Your task to perform on an android device: Go to battery settings Image 0: 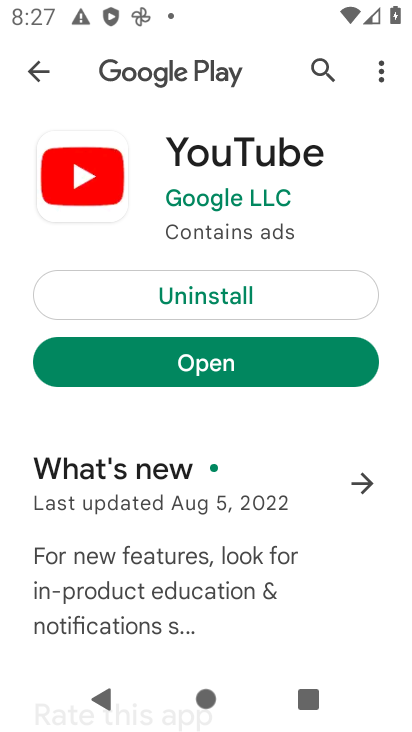
Step 0: press home button
Your task to perform on an android device: Go to battery settings Image 1: 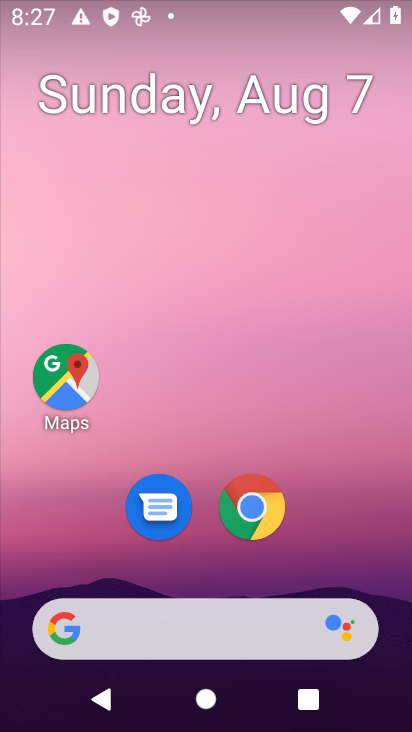
Step 1: drag from (185, 607) to (351, 59)
Your task to perform on an android device: Go to battery settings Image 2: 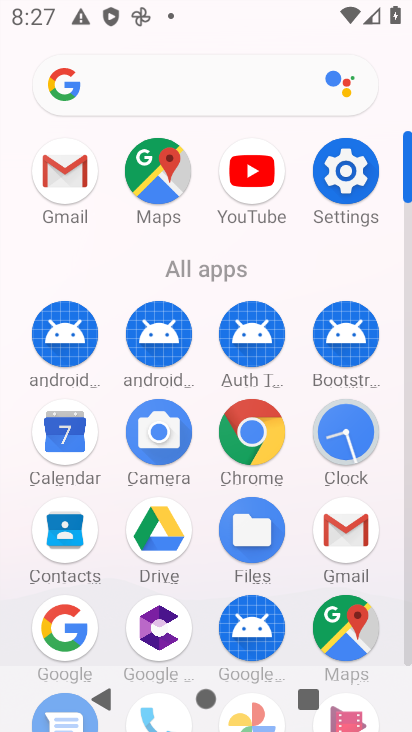
Step 2: click (342, 187)
Your task to perform on an android device: Go to battery settings Image 3: 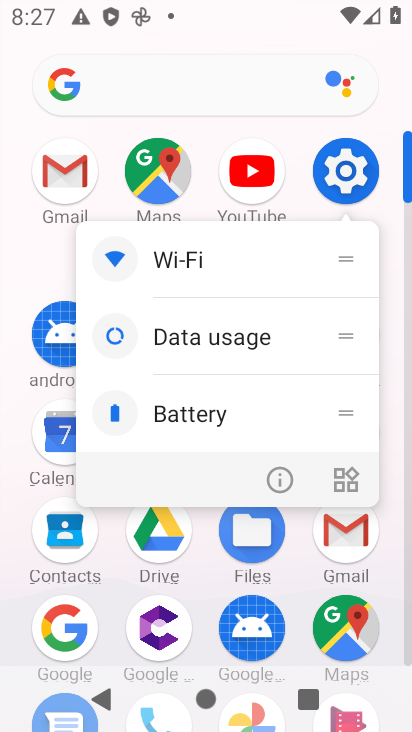
Step 3: click (346, 174)
Your task to perform on an android device: Go to battery settings Image 4: 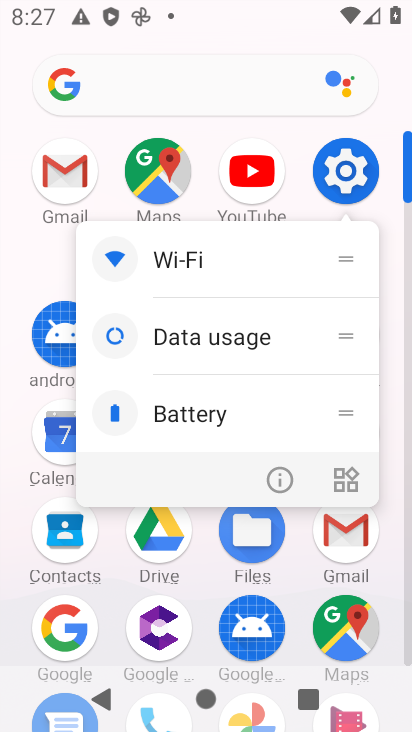
Step 4: click (346, 173)
Your task to perform on an android device: Go to battery settings Image 5: 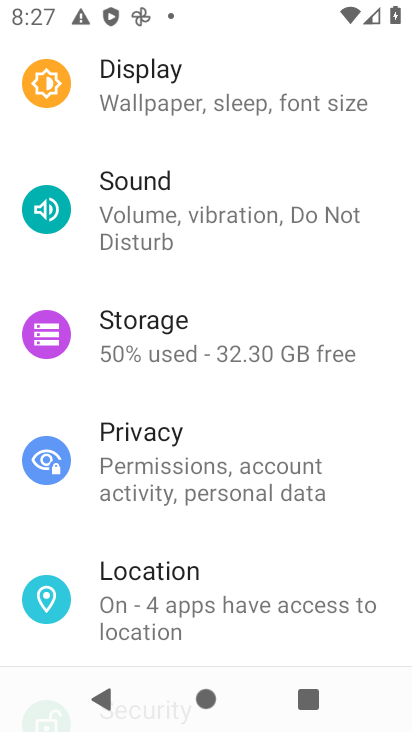
Step 5: drag from (315, 170) to (271, 564)
Your task to perform on an android device: Go to battery settings Image 6: 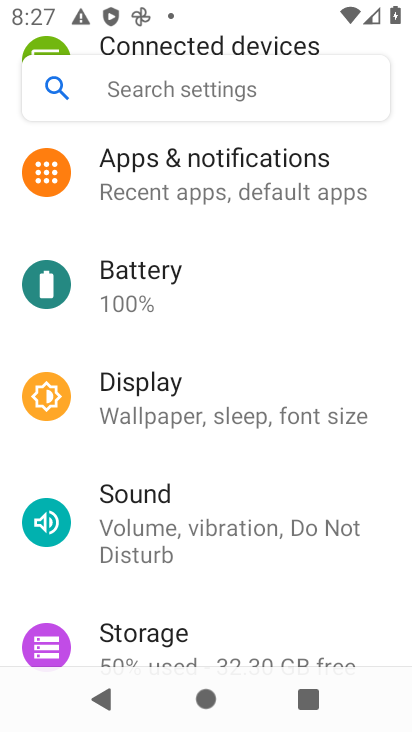
Step 6: click (151, 286)
Your task to perform on an android device: Go to battery settings Image 7: 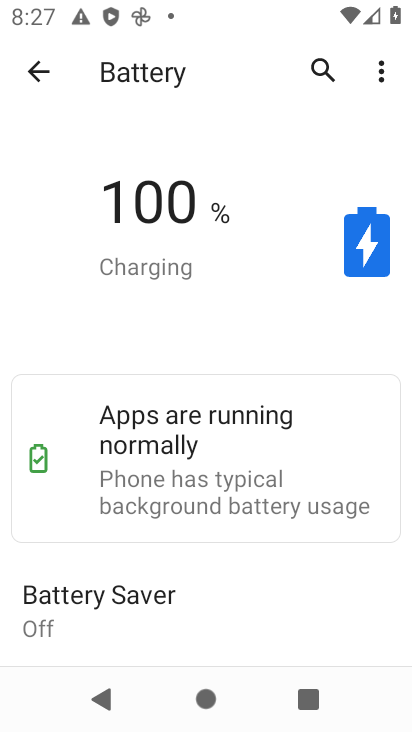
Step 7: task complete